Your task to perform on an android device: Show me productivity apps on the Play Store Image 0: 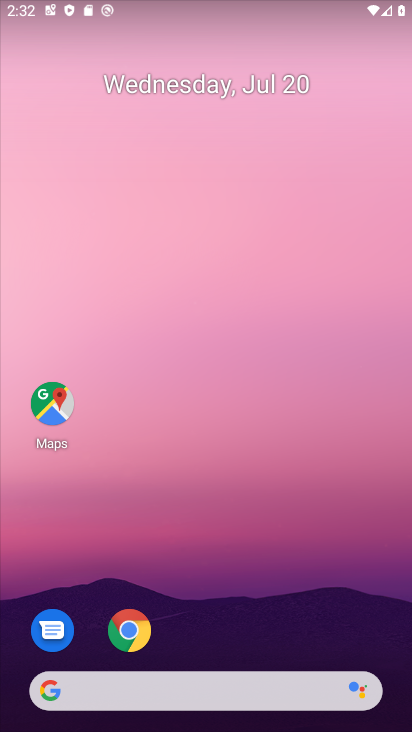
Step 0: drag from (365, 610) to (371, 97)
Your task to perform on an android device: Show me productivity apps on the Play Store Image 1: 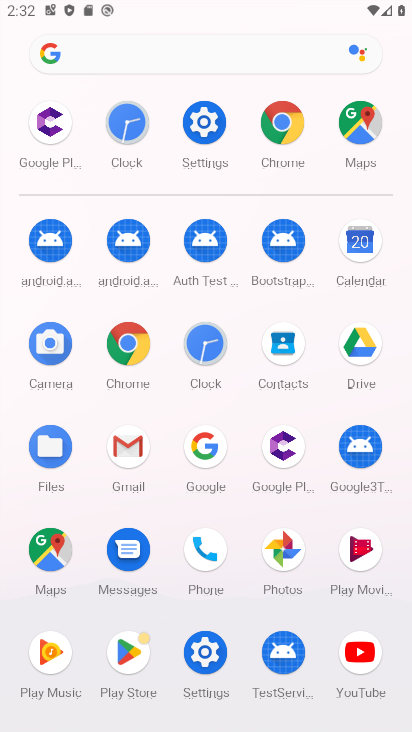
Step 1: click (137, 652)
Your task to perform on an android device: Show me productivity apps on the Play Store Image 2: 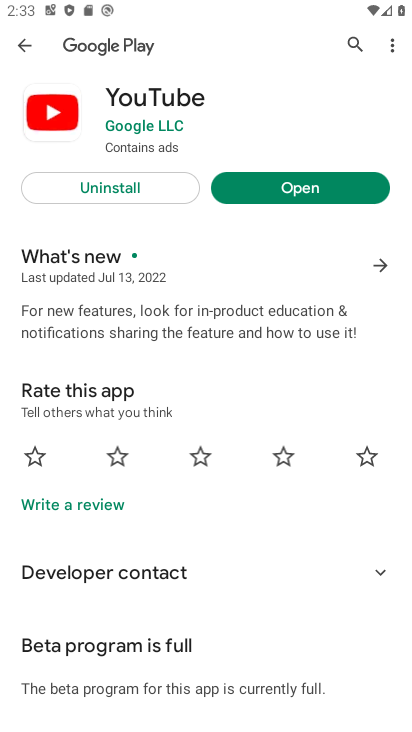
Step 2: press back button
Your task to perform on an android device: Show me productivity apps on the Play Store Image 3: 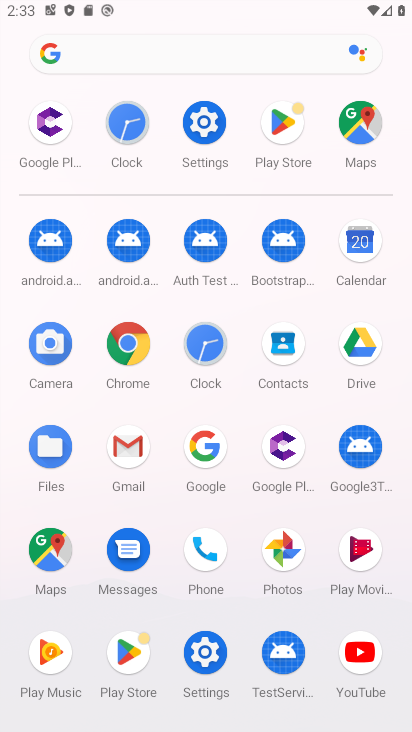
Step 3: click (131, 661)
Your task to perform on an android device: Show me productivity apps on the Play Store Image 4: 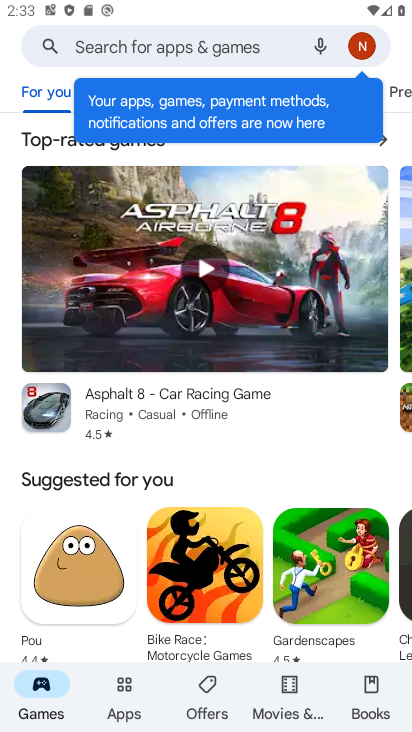
Step 4: click (139, 699)
Your task to perform on an android device: Show me productivity apps on the Play Store Image 5: 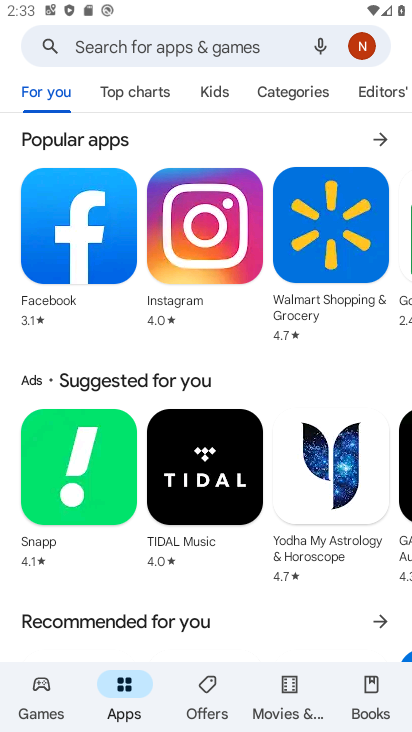
Step 5: task complete